Your task to perform on an android device: Go to network settings Image 0: 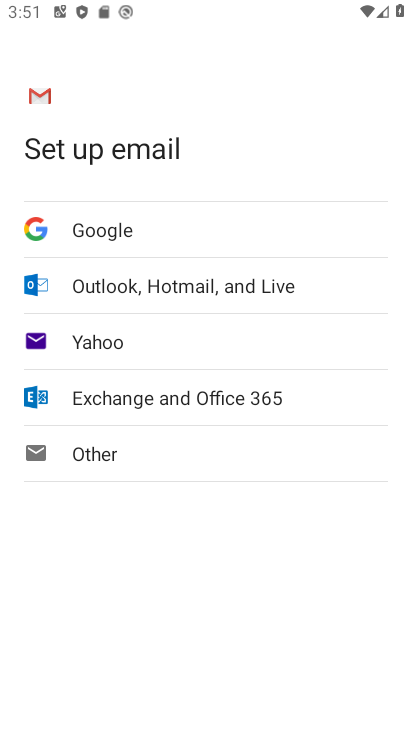
Step 0: press home button
Your task to perform on an android device: Go to network settings Image 1: 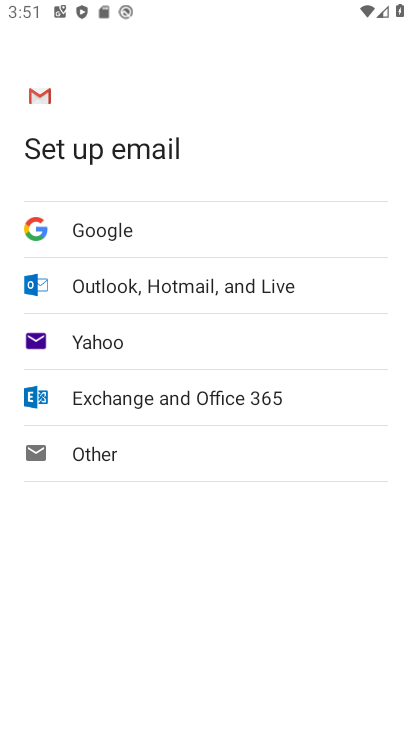
Step 1: press home button
Your task to perform on an android device: Go to network settings Image 2: 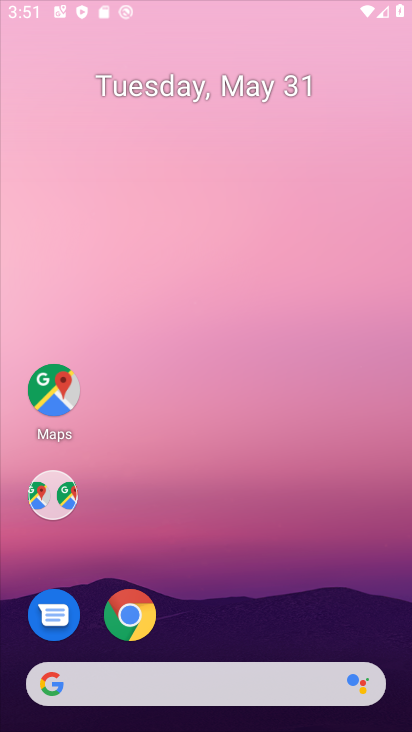
Step 2: press home button
Your task to perform on an android device: Go to network settings Image 3: 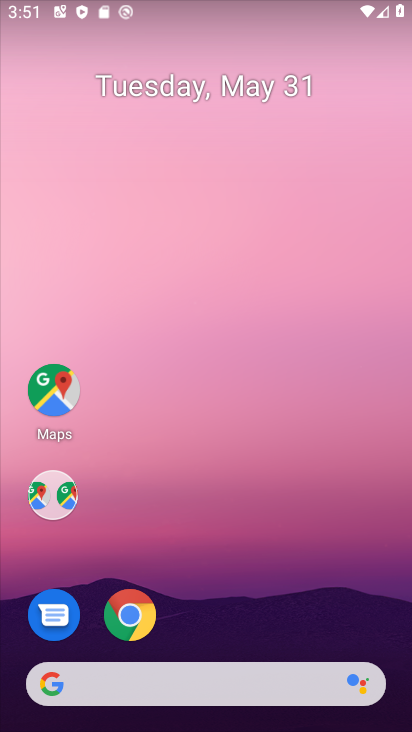
Step 3: drag from (298, 394) to (263, 124)
Your task to perform on an android device: Go to network settings Image 4: 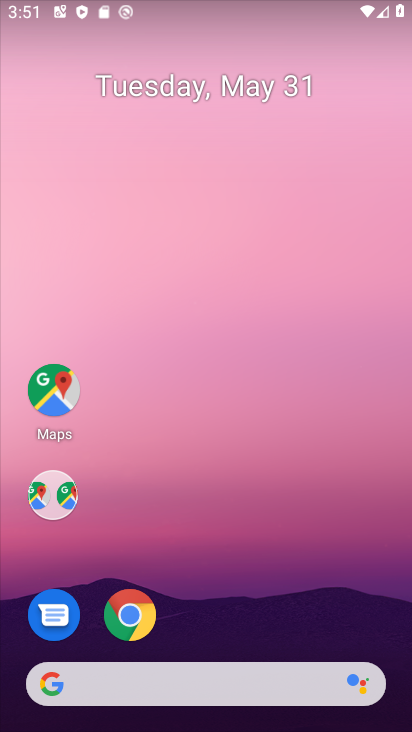
Step 4: drag from (250, 696) to (163, 122)
Your task to perform on an android device: Go to network settings Image 5: 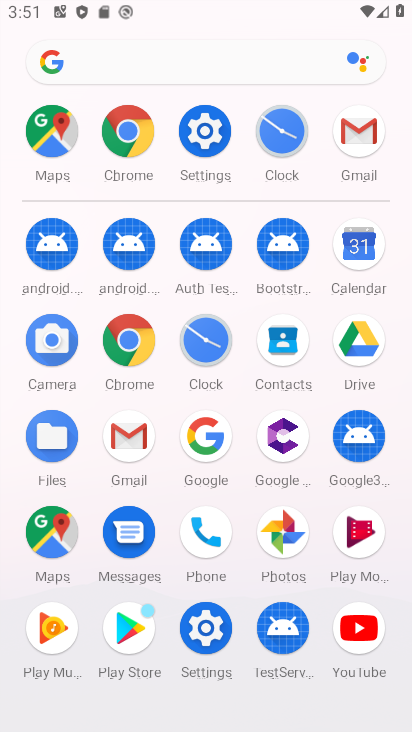
Step 5: click (197, 134)
Your task to perform on an android device: Go to network settings Image 6: 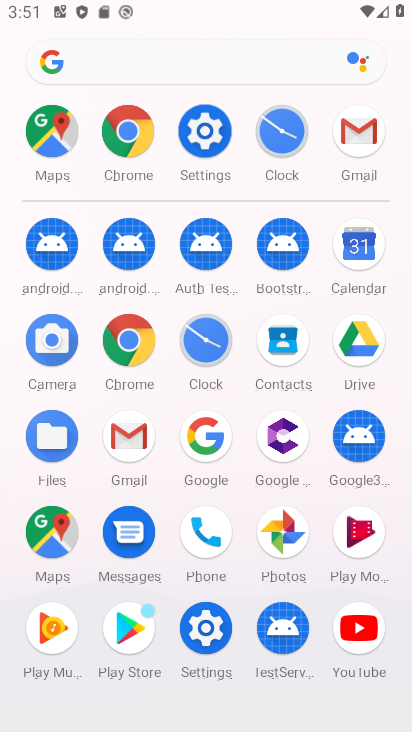
Step 6: click (197, 134)
Your task to perform on an android device: Go to network settings Image 7: 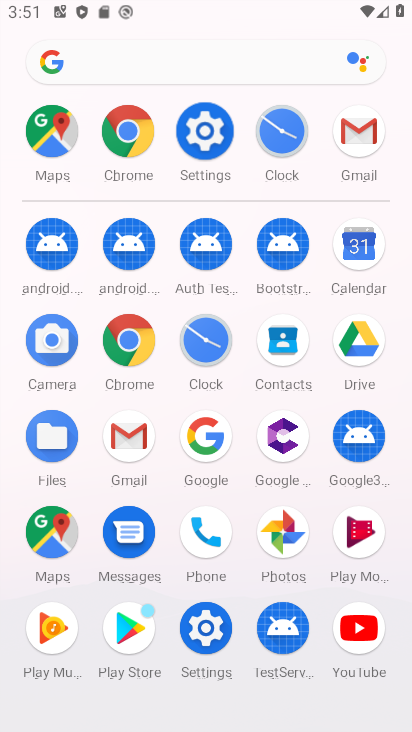
Step 7: click (197, 134)
Your task to perform on an android device: Go to network settings Image 8: 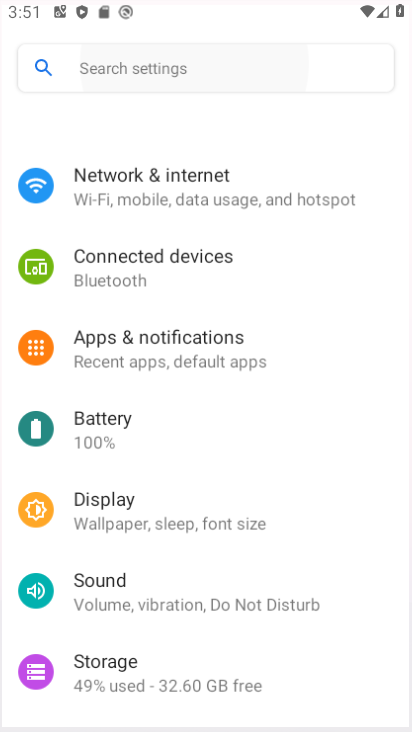
Step 8: click (198, 134)
Your task to perform on an android device: Go to network settings Image 9: 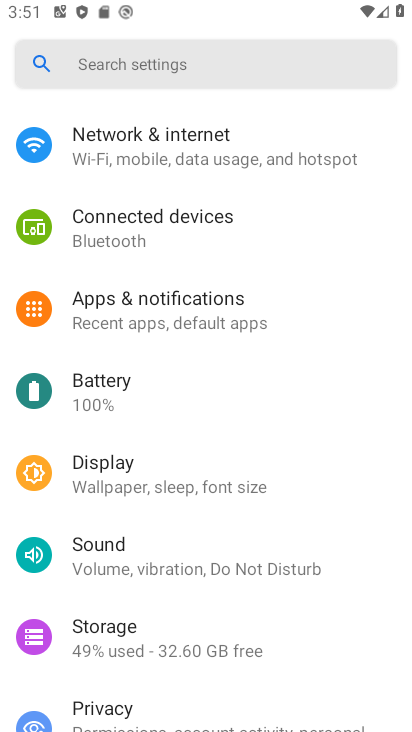
Step 9: click (198, 134)
Your task to perform on an android device: Go to network settings Image 10: 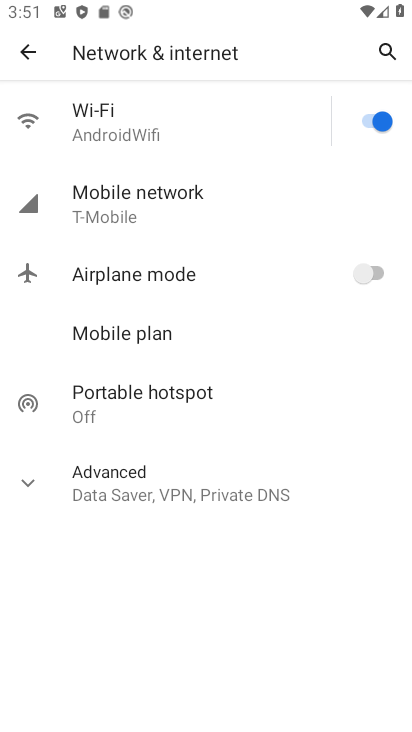
Step 10: task complete